Your task to perform on an android device: turn on airplane mode Image 0: 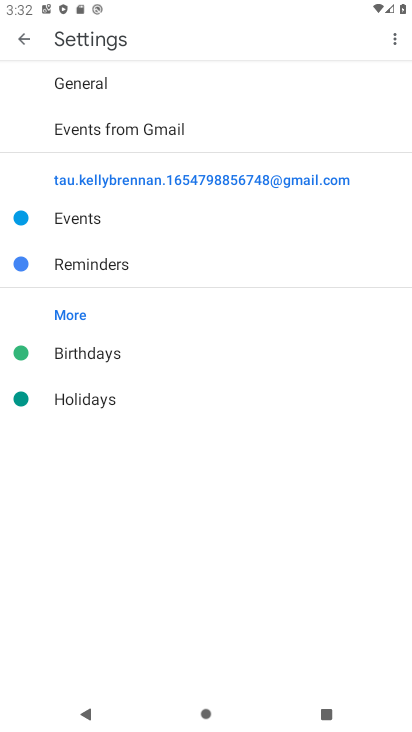
Step 0: type ""
Your task to perform on an android device: turn on airplane mode Image 1: 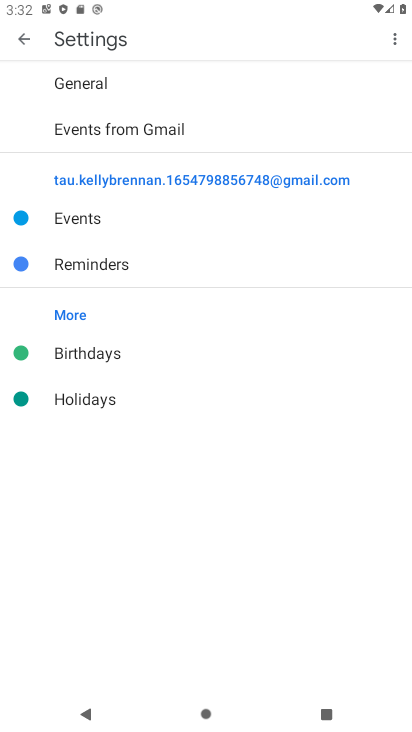
Step 1: press home button
Your task to perform on an android device: turn on airplane mode Image 2: 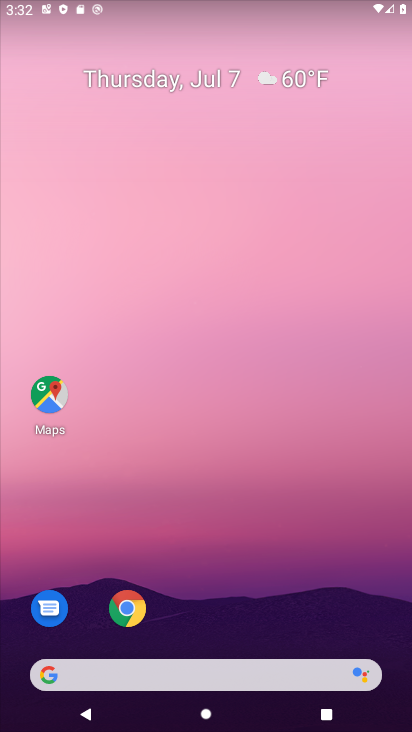
Step 2: drag from (254, 687) to (236, 308)
Your task to perform on an android device: turn on airplane mode Image 3: 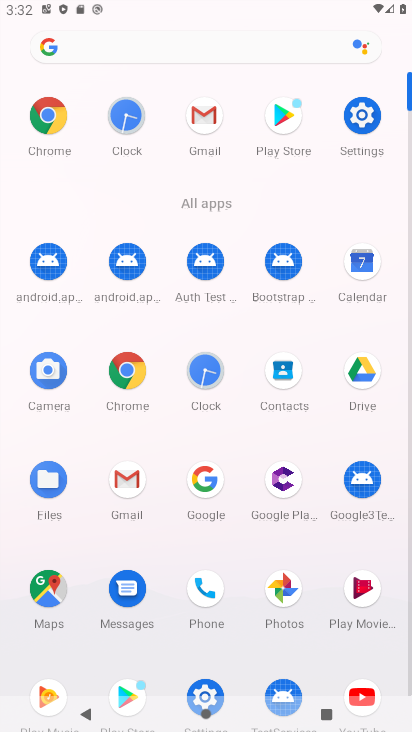
Step 3: click (354, 118)
Your task to perform on an android device: turn on airplane mode Image 4: 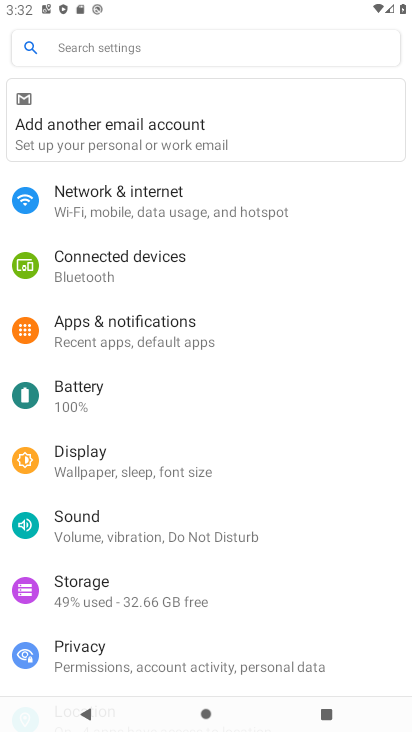
Step 4: click (142, 199)
Your task to perform on an android device: turn on airplane mode Image 5: 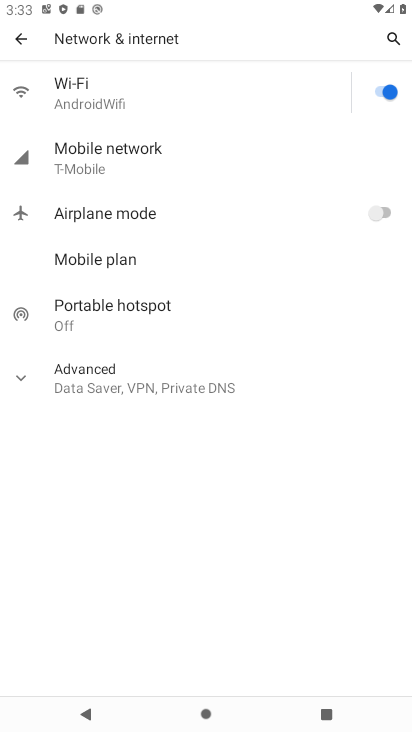
Step 5: click (378, 219)
Your task to perform on an android device: turn on airplane mode Image 6: 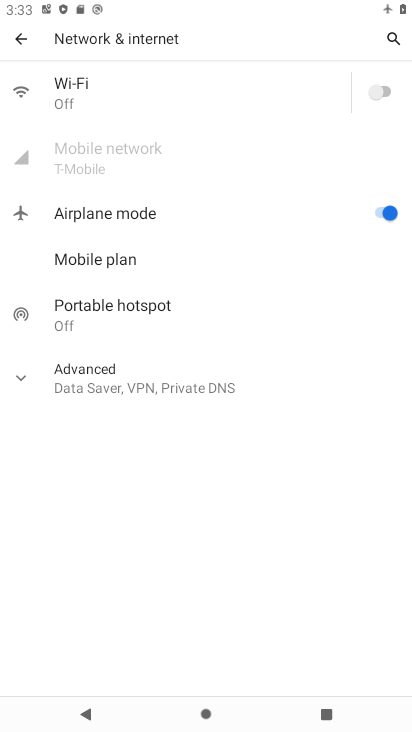
Step 6: task complete